Your task to perform on an android device: add a contact in the contacts app Image 0: 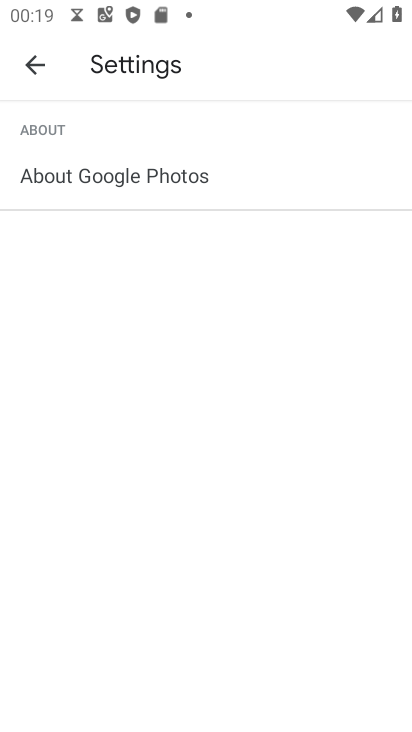
Step 0: press home button
Your task to perform on an android device: add a contact in the contacts app Image 1: 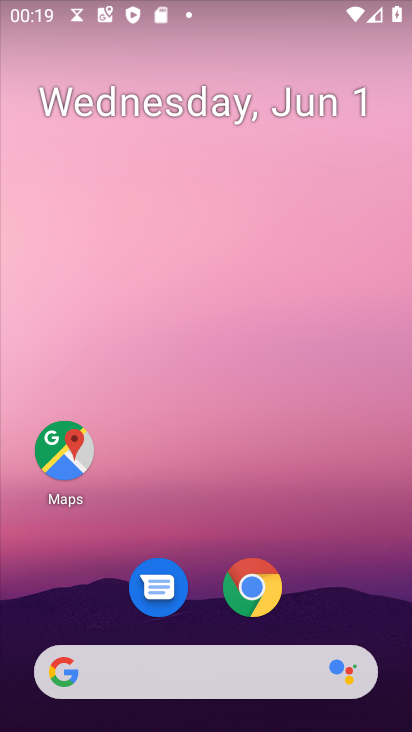
Step 1: drag from (318, 291) to (303, 70)
Your task to perform on an android device: add a contact in the contacts app Image 2: 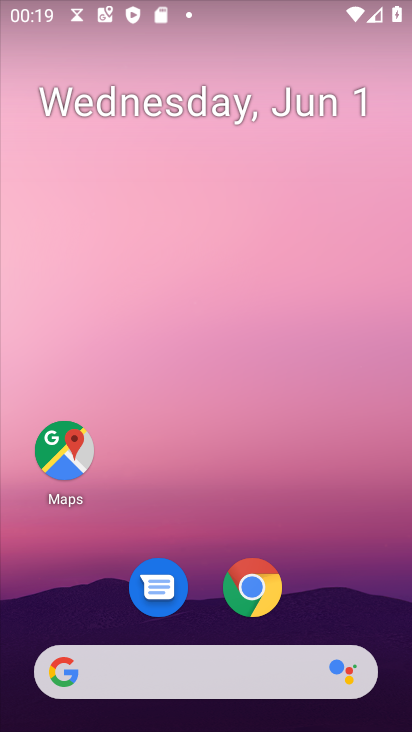
Step 2: drag from (318, 565) to (325, 0)
Your task to perform on an android device: add a contact in the contacts app Image 3: 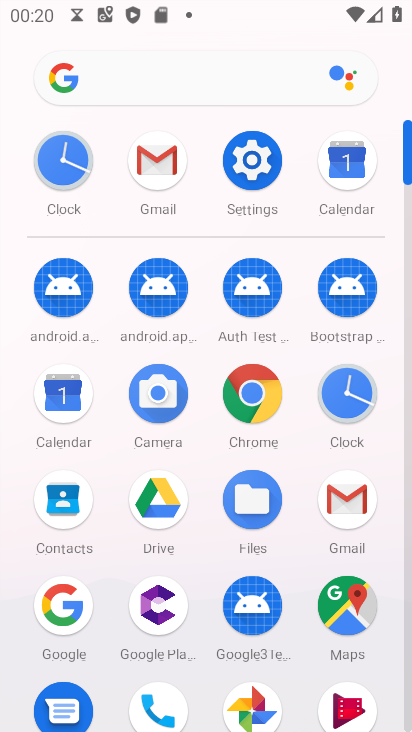
Step 3: click (59, 501)
Your task to perform on an android device: add a contact in the contacts app Image 4: 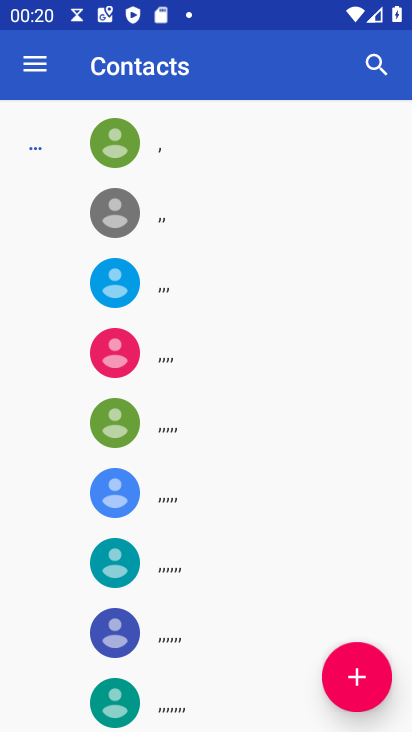
Step 4: click (352, 681)
Your task to perform on an android device: add a contact in the contacts app Image 5: 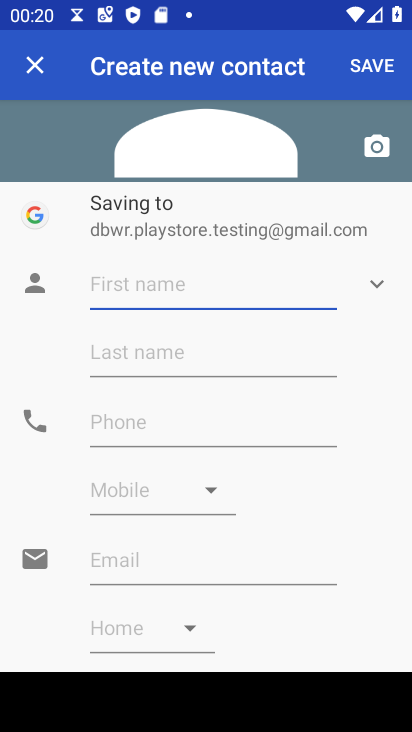
Step 5: type "uytrewqas"
Your task to perform on an android device: add a contact in the contacts app Image 6: 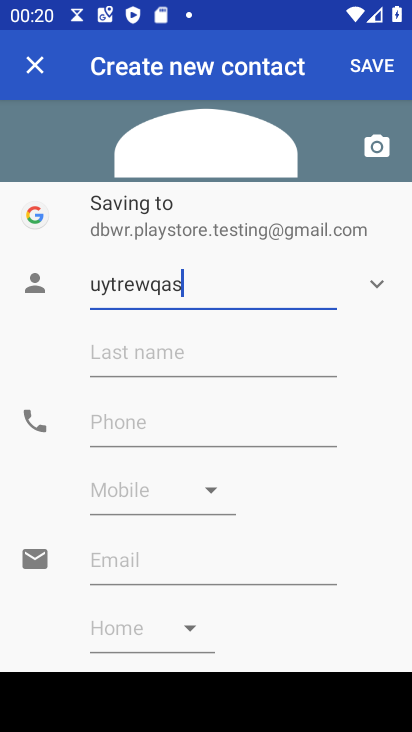
Step 6: click (107, 436)
Your task to perform on an android device: add a contact in the contacts app Image 7: 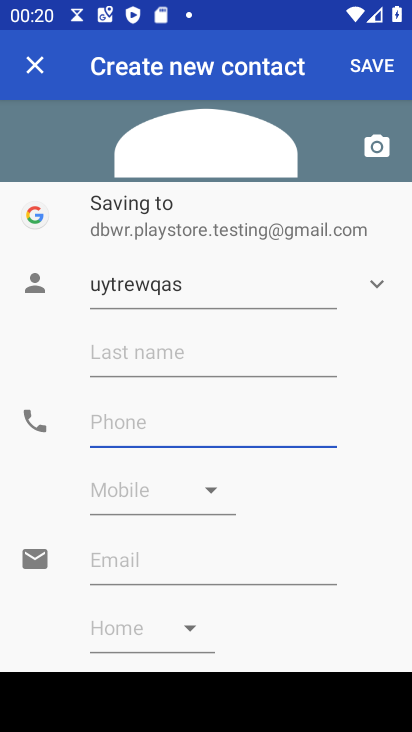
Step 7: type "7654321890"
Your task to perform on an android device: add a contact in the contacts app Image 8: 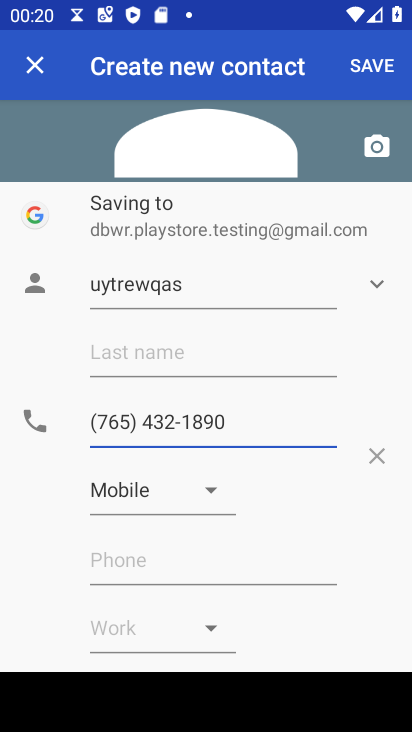
Step 8: click (370, 48)
Your task to perform on an android device: add a contact in the contacts app Image 9: 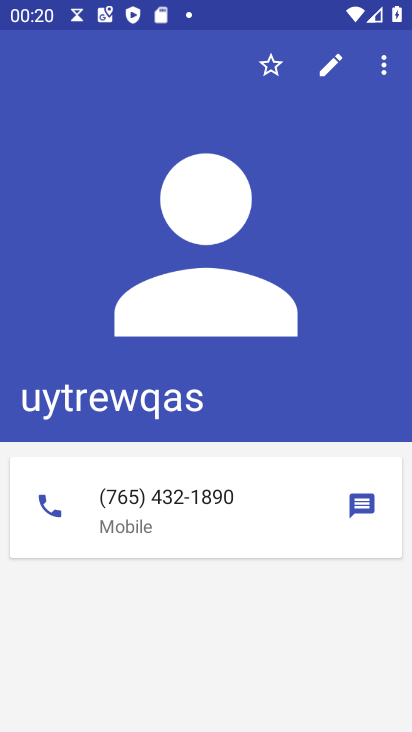
Step 9: task complete